Your task to perform on an android device: Open the web browser Image 0: 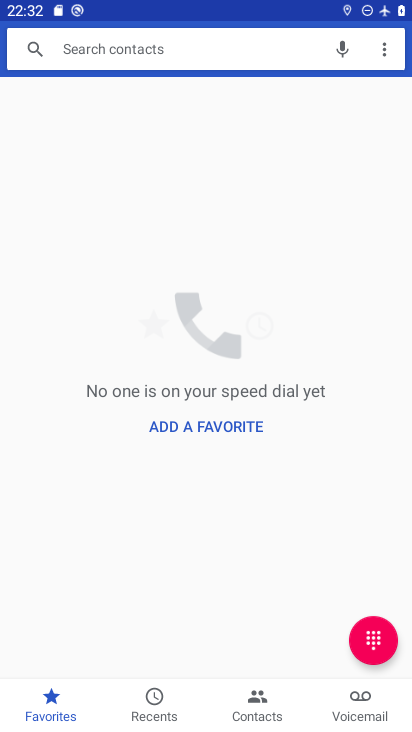
Step 0: press home button
Your task to perform on an android device: Open the web browser Image 1: 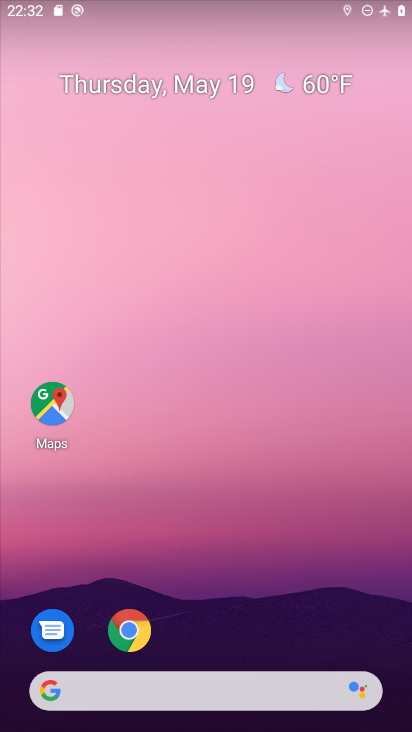
Step 1: click (129, 634)
Your task to perform on an android device: Open the web browser Image 2: 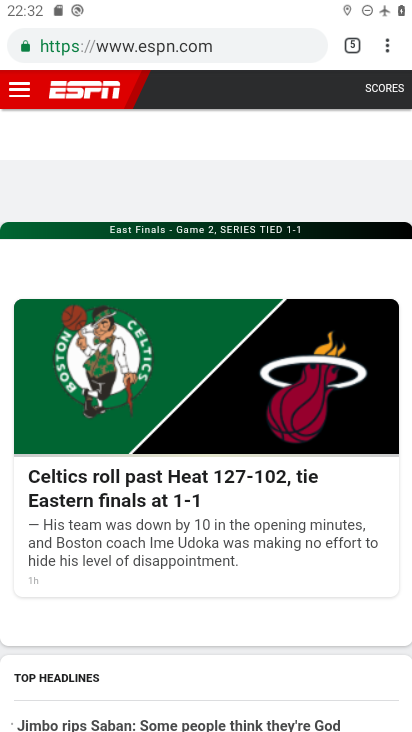
Step 2: task complete